Your task to perform on an android device: What's the weather today? Image 0: 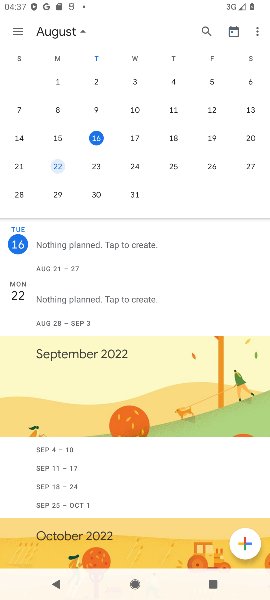
Step 0: press home button
Your task to perform on an android device: What's the weather today? Image 1: 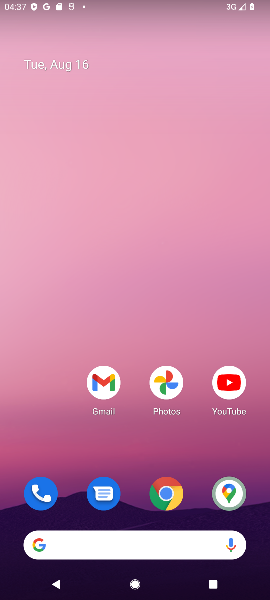
Step 1: click (141, 549)
Your task to perform on an android device: What's the weather today? Image 2: 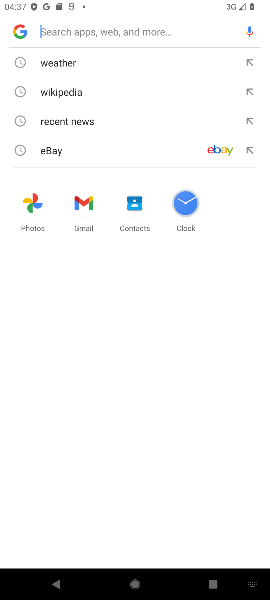
Step 2: click (84, 65)
Your task to perform on an android device: What's the weather today? Image 3: 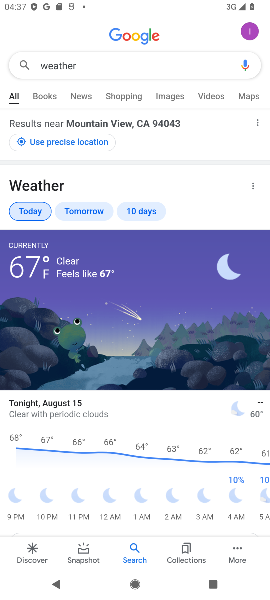
Step 3: task complete